Your task to perform on an android device: Search for Mexican restaurants on Maps Image 0: 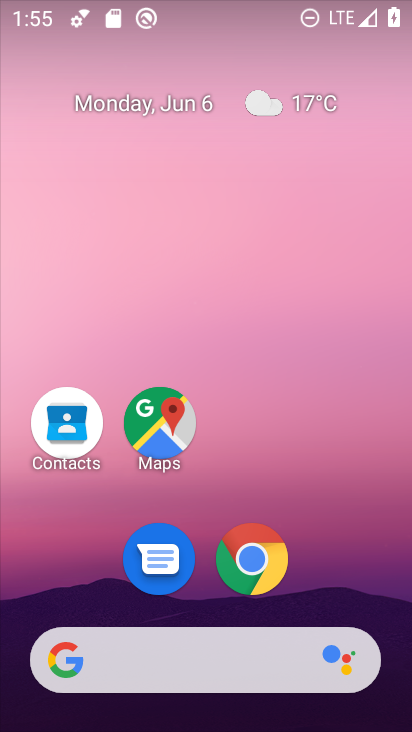
Step 0: drag from (286, 611) to (292, 60)
Your task to perform on an android device: Search for Mexican restaurants on Maps Image 1: 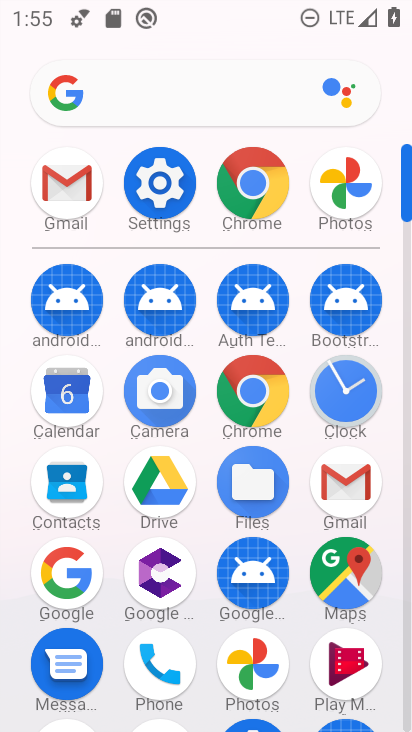
Step 1: click (345, 568)
Your task to perform on an android device: Search for Mexican restaurants on Maps Image 2: 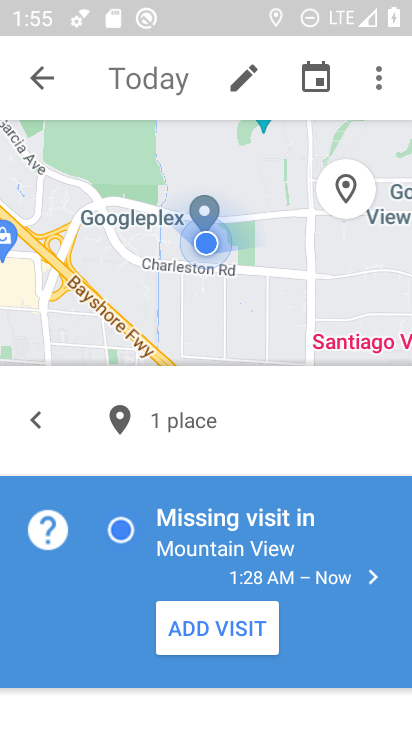
Step 2: click (52, 70)
Your task to perform on an android device: Search for Mexican restaurants on Maps Image 3: 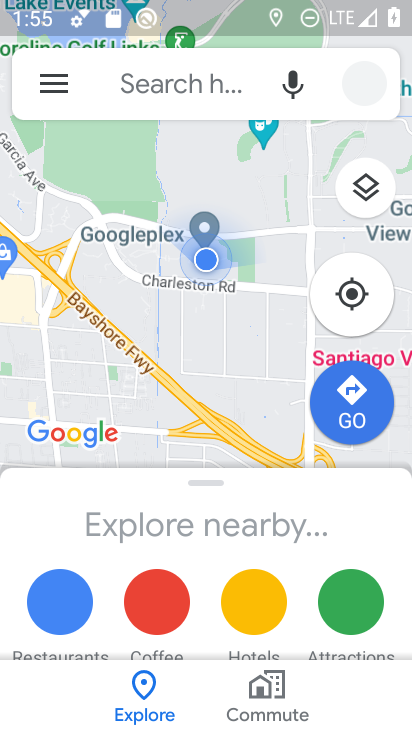
Step 3: click (183, 95)
Your task to perform on an android device: Search for Mexican restaurants on Maps Image 4: 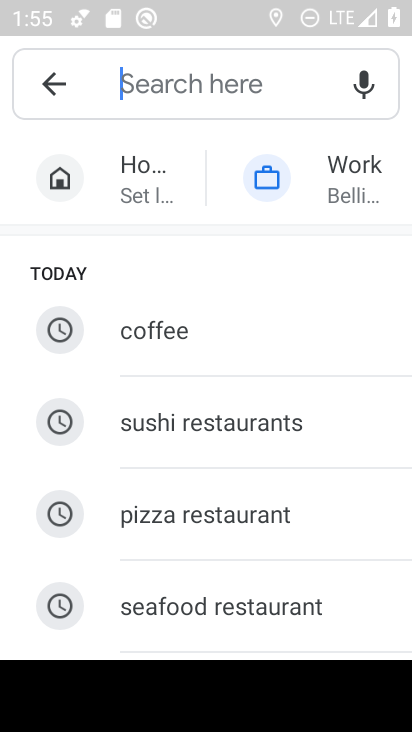
Step 4: type "mexi"
Your task to perform on an android device: Search for Mexican restaurants on Maps Image 5: 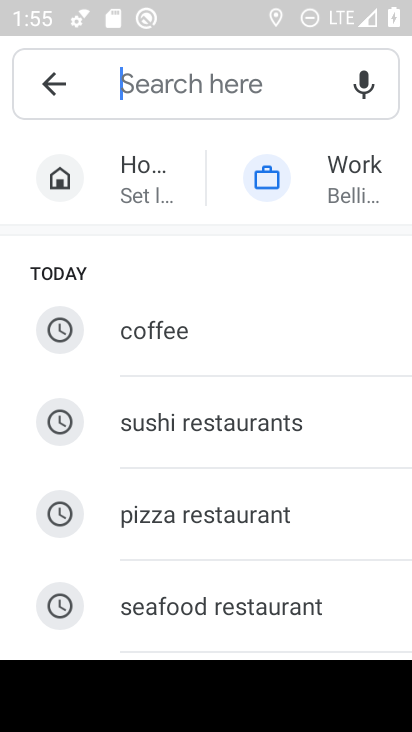
Step 5: drag from (280, 334) to (279, 233)
Your task to perform on an android device: Search for Mexican restaurants on Maps Image 6: 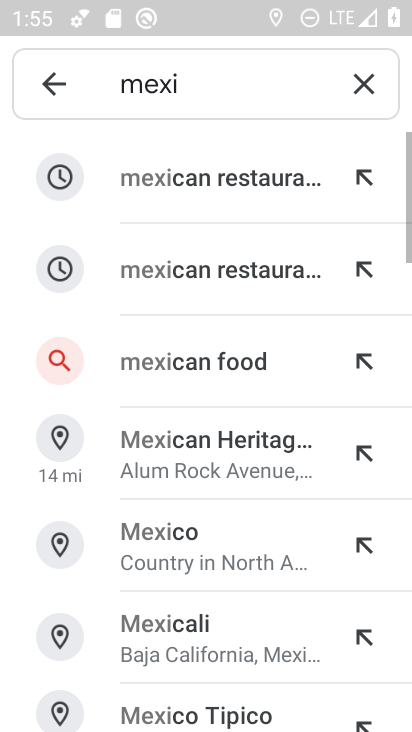
Step 6: click (262, 172)
Your task to perform on an android device: Search for Mexican restaurants on Maps Image 7: 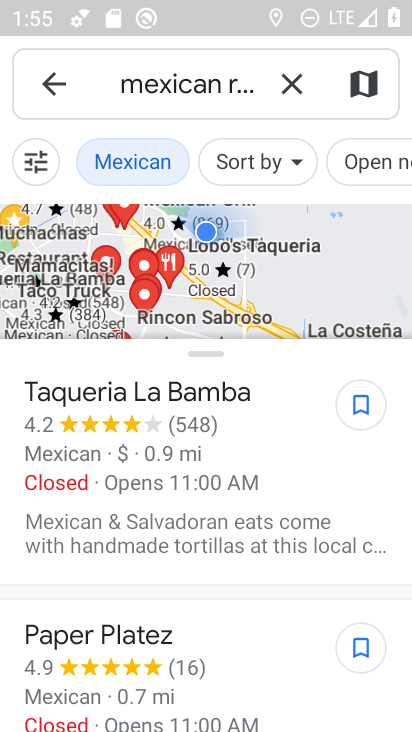
Step 7: task complete